Your task to perform on an android device: allow cookies in the chrome app Image 0: 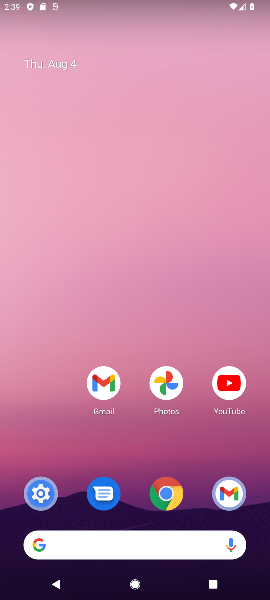
Step 0: click (164, 499)
Your task to perform on an android device: allow cookies in the chrome app Image 1: 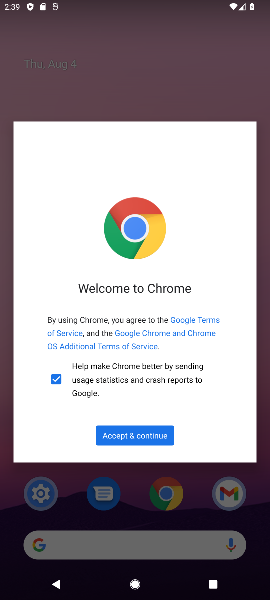
Step 1: click (149, 427)
Your task to perform on an android device: allow cookies in the chrome app Image 2: 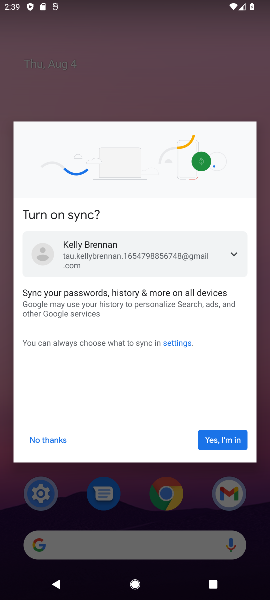
Step 2: click (221, 435)
Your task to perform on an android device: allow cookies in the chrome app Image 3: 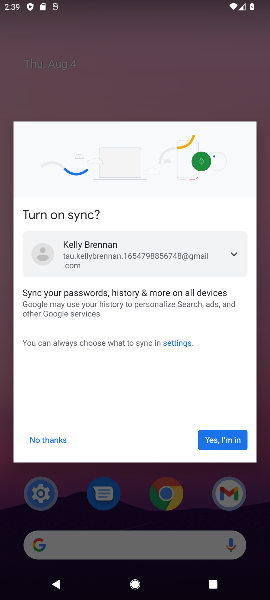
Step 3: click (218, 436)
Your task to perform on an android device: allow cookies in the chrome app Image 4: 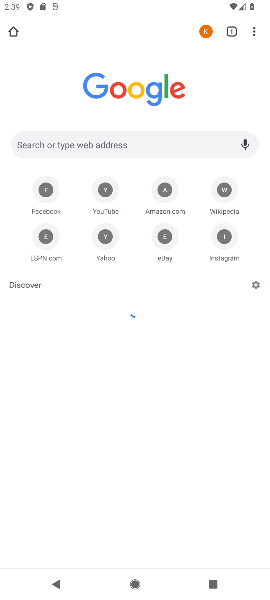
Step 4: click (249, 33)
Your task to perform on an android device: allow cookies in the chrome app Image 5: 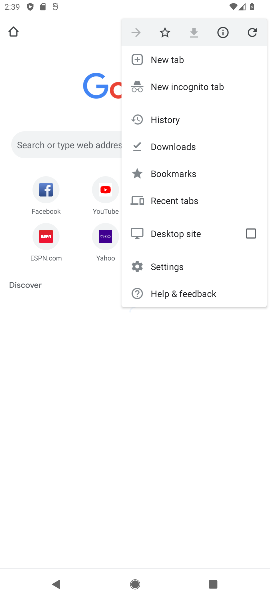
Step 5: click (166, 264)
Your task to perform on an android device: allow cookies in the chrome app Image 6: 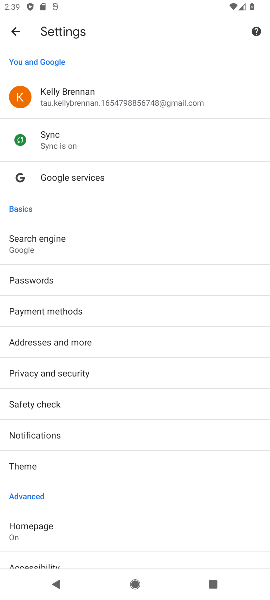
Step 6: drag from (43, 530) to (86, 290)
Your task to perform on an android device: allow cookies in the chrome app Image 7: 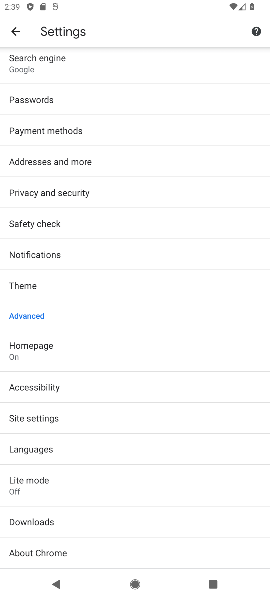
Step 7: click (25, 188)
Your task to perform on an android device: allow cookies in the chrome app Image 8: 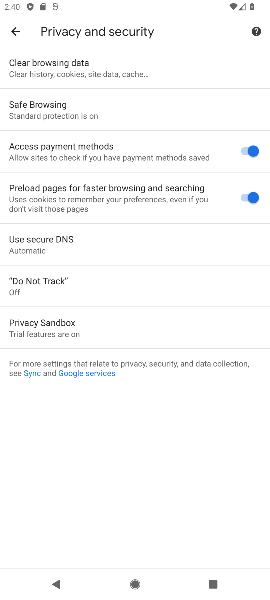
Step 8: click (36, 65)
Your task to perform on an android device: allow cookies in the chrome app Image 9: 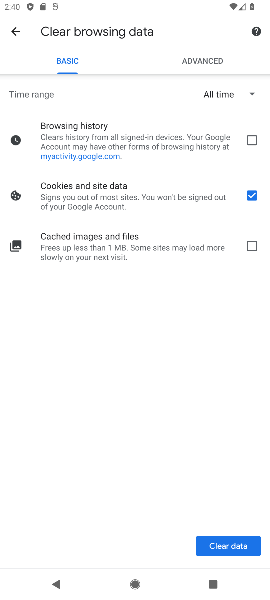
Step 9: click (248, 248)
Your task to perform on an android device: allow cookies in the chrome app Image 10: 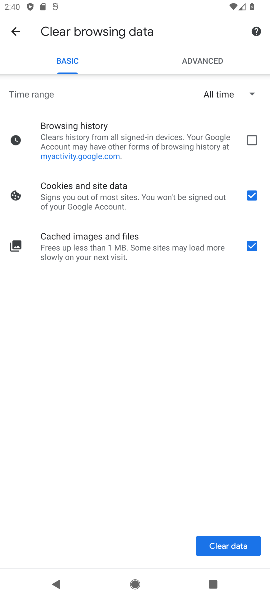
Step 10: click (251, 134)
Your task to perform on an android device: allow cookies in the chrome app Image 11: 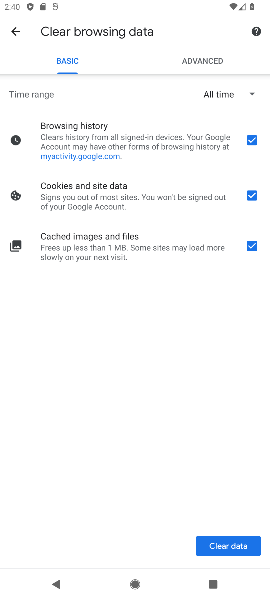
Step 11: click (239, 544)
Your task to perform on an android device: allow cookies in the chrome app Image 12: 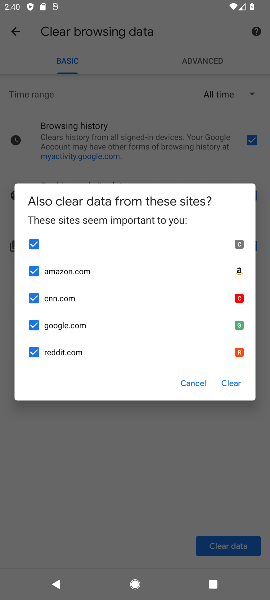
Step 12: click (226, 385)
Your task to perform on an android device: allow cookies in the chrome app Image 13: 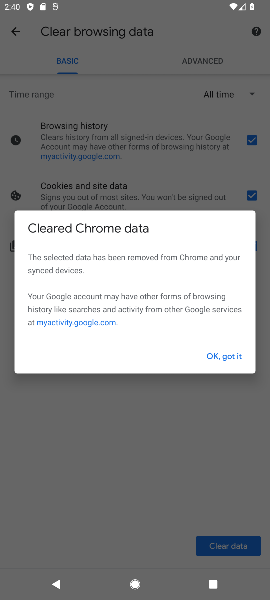
Step 13: click (225, 355)
Your task to perform on an android device: allow cookies in the chrome app Image 14: 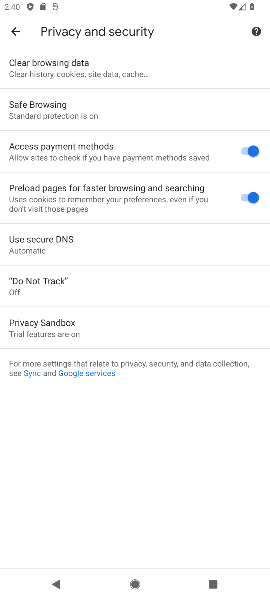
Step 14: task complete